Your task to perform on an android device: Search for Italian restaurants on Maps Image 0: 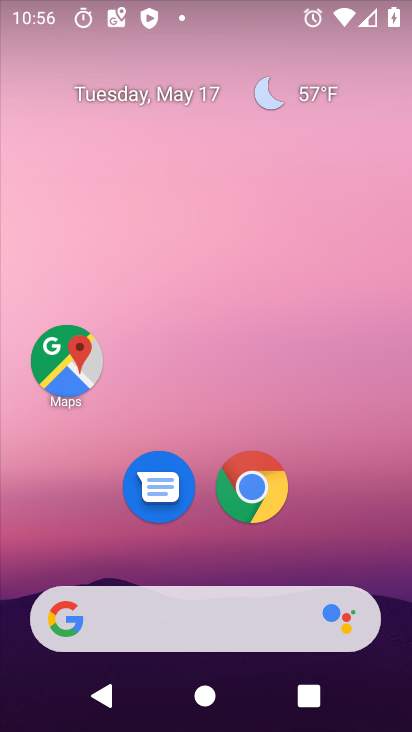
Step 0: drag from (241, 717) to (238, 391)
Your task to perform on an android device: Search for Italian restaurants on Maps Image 1: 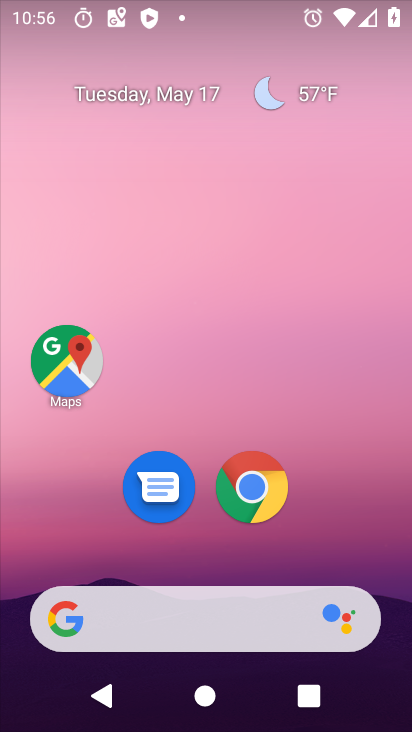
Step 1: drag from (238, 711) to (243, 29)
Your task to perform on an android device: Search for Italian restaurants on Maps Image 2: 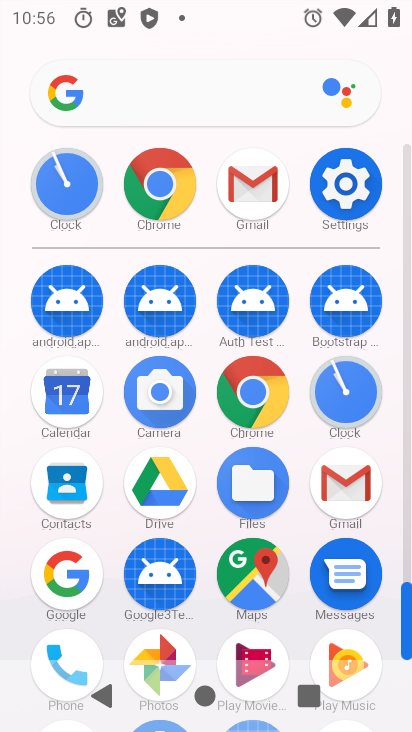
Step 2: click (262, 561)
Your task to perform on an android device: Search for Italian restaurants on Maps Image 3: 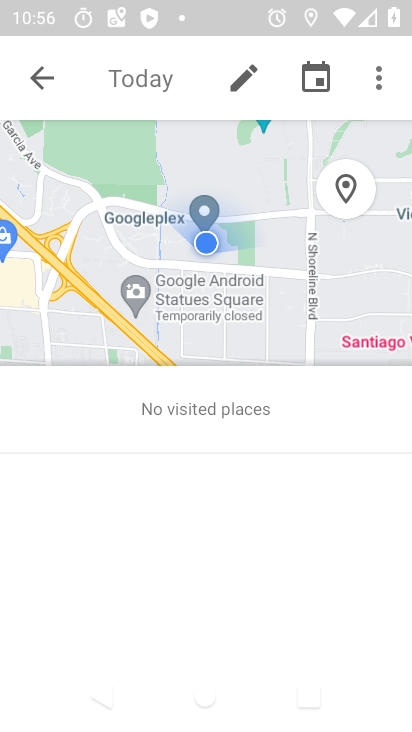
Step 3: click (40, 72)
Your task to perform on an android device: Search for Italian restaurants on Maps Image 4: 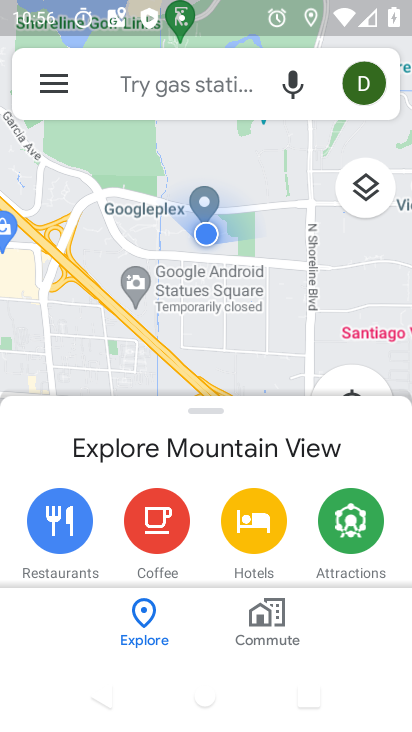
Step 4: click (141, 86)
Your task to perform on an android device: Search for Italian restaurants on Maps Image 5: 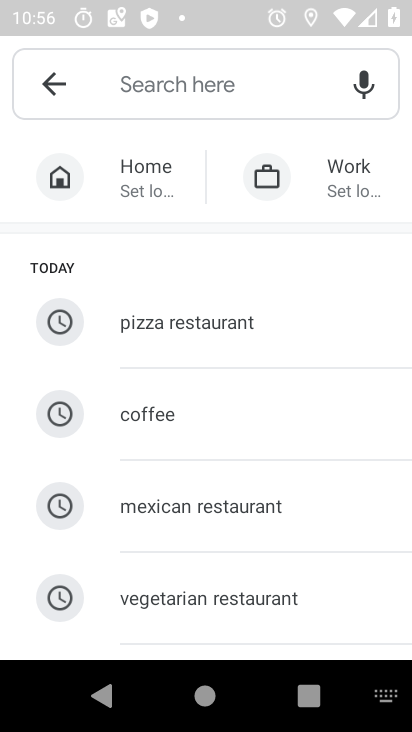
Step 5: type "italian restaurants"
Your task to perform on an android device: Search for Italian restaurants on Maps Image 6: 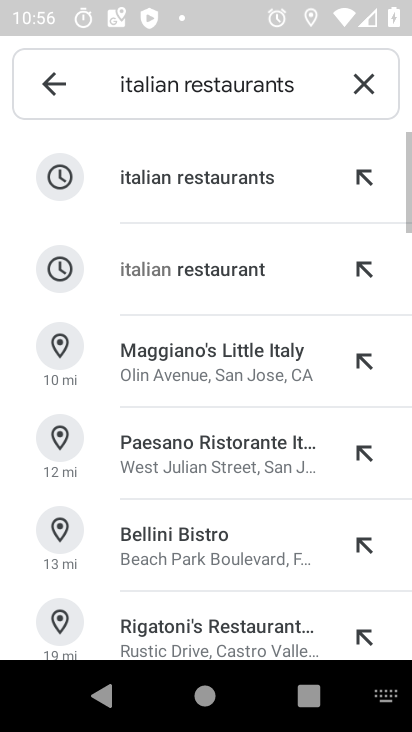
Step 6: click (168, 177)
Your task to perform on an android device: Search for Italian restaurants on Maps Image 7: 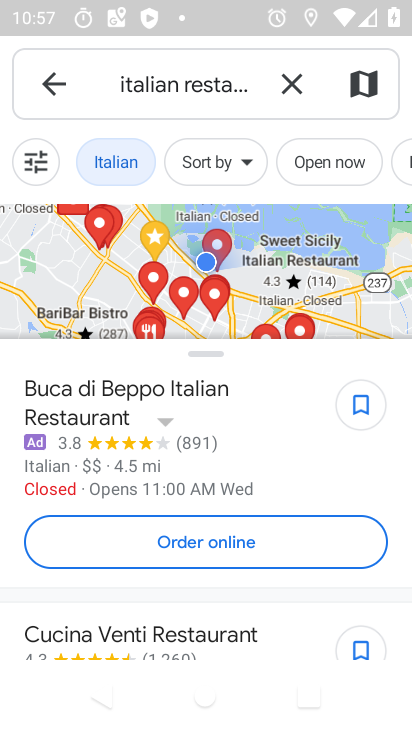
Step 7: task complete